Your task to perform on an android device: Go to calendar. Show me events next week Image 0: 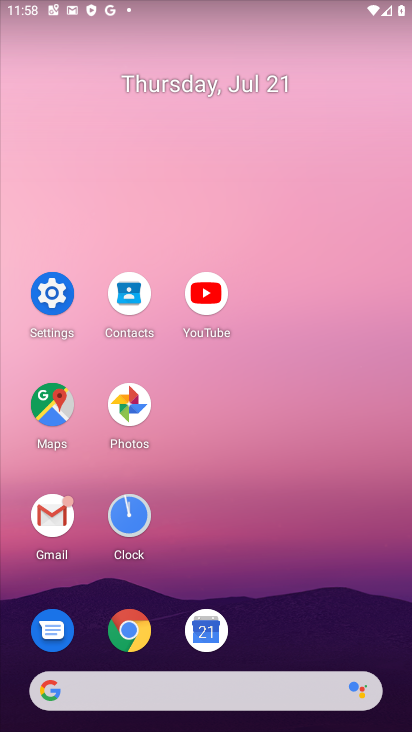
Step 0: click (199, 634)
Your task to perform on an android device: Go to calendar. Show me events next week Image 1: 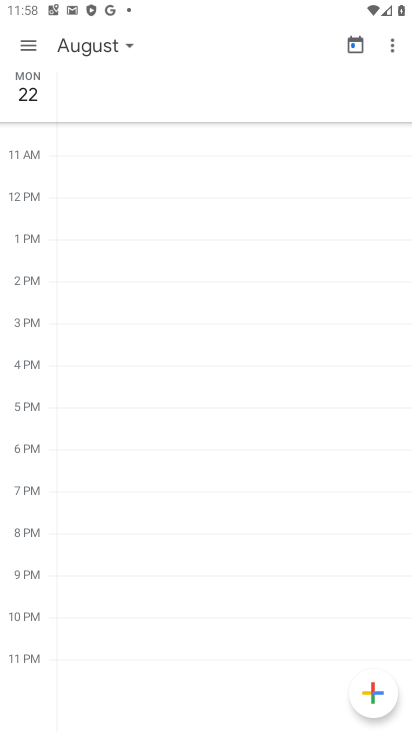
Step 1: click (129, 44)
Your task to perform on an android device: Go to calendar. Show me events next week Image 2: 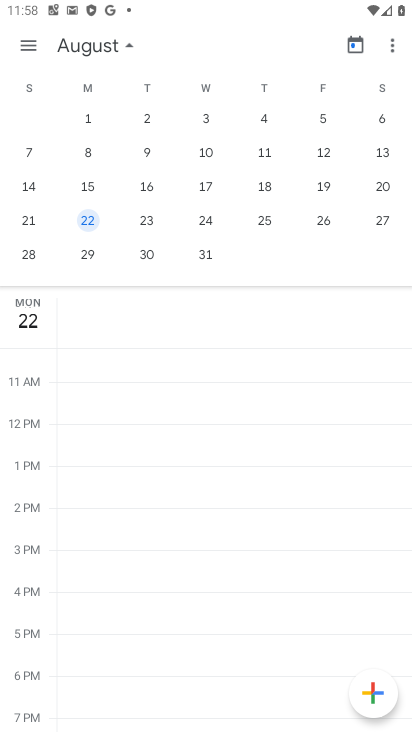
Step 2: drag from (48, 174) to (406, 264)
Your task to perform on an android device: Go to calendar. Show me events next week Image 3: 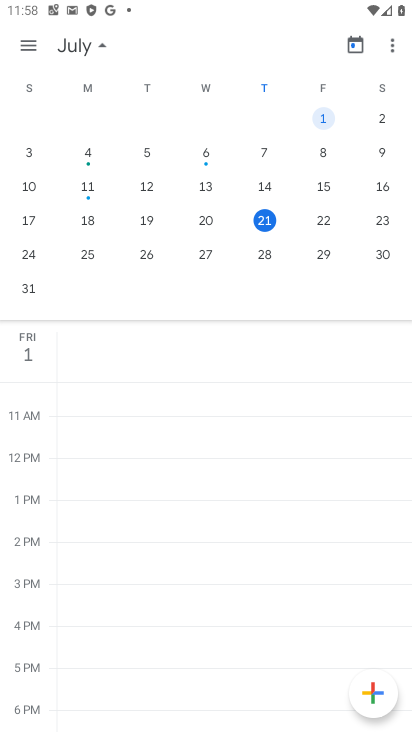
Step 3: click (257, 219)
Your task to perform on an android device: Go to calendar. Show me events next week Image 4: 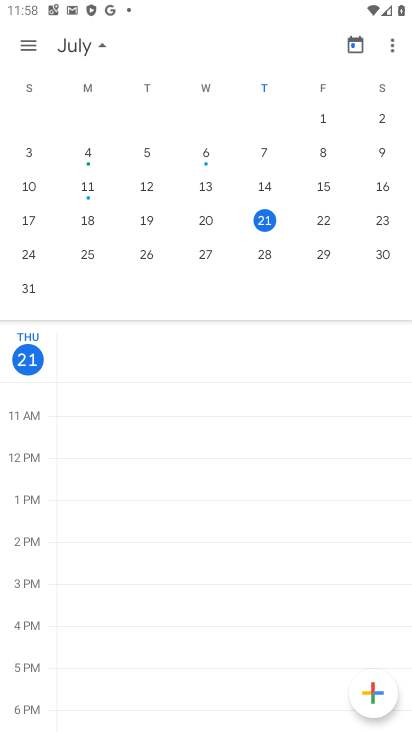
Step 4: click (27, 48)
Your task to perform on an android device: Go to calendar. Show me events next week Image 5: 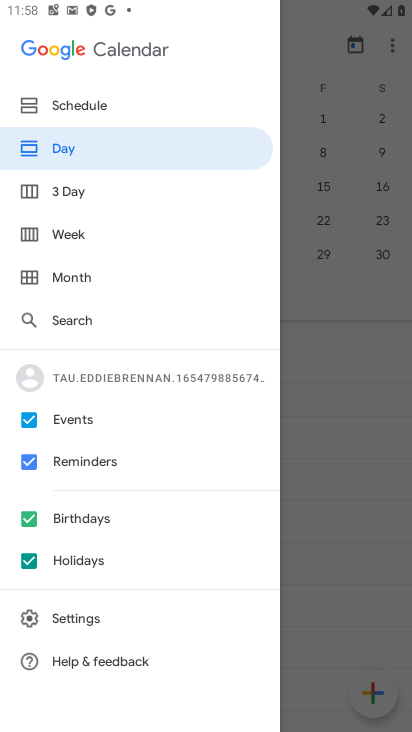
Step 5: click (64, 239)
Your task to perform on an android device: Go to calendar. Show me events next week Image 6: 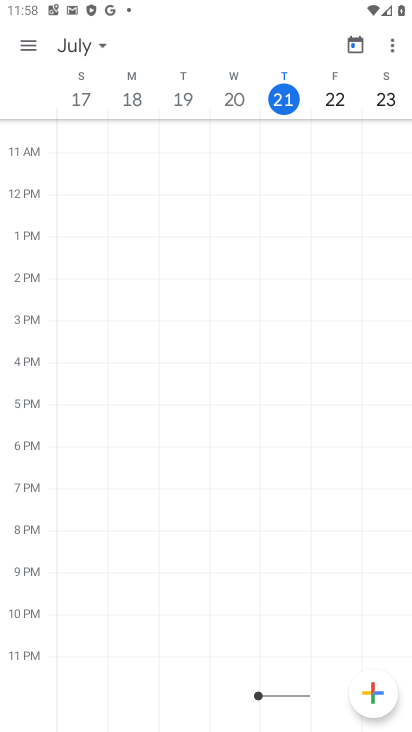
Step 6: task complete